Your task to perform on an android device: change the clock display to digital Image 0: 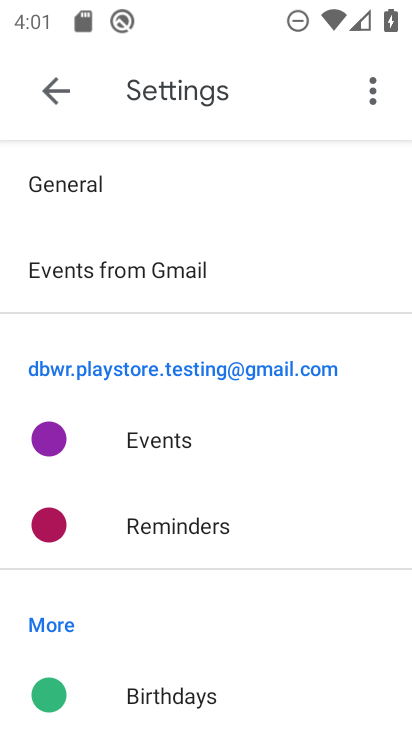
Step 0: press home button
Your task to perform on an android device: change the clock display to digital Image 1: 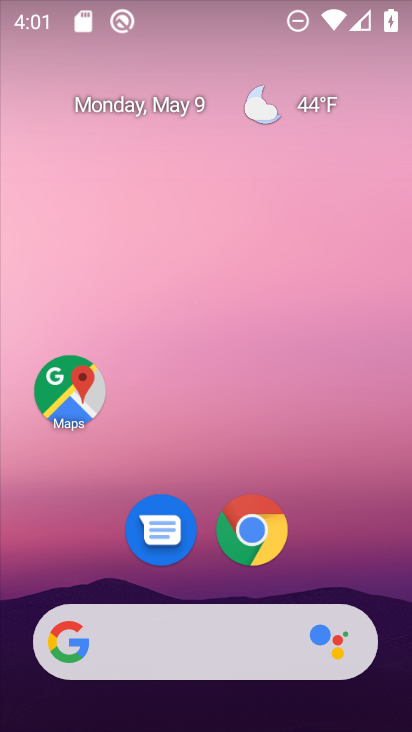
Step 1: drag from (208, 575) to (205, 82)
Your task to perform on an android device: change the clock display to digital Image 2: 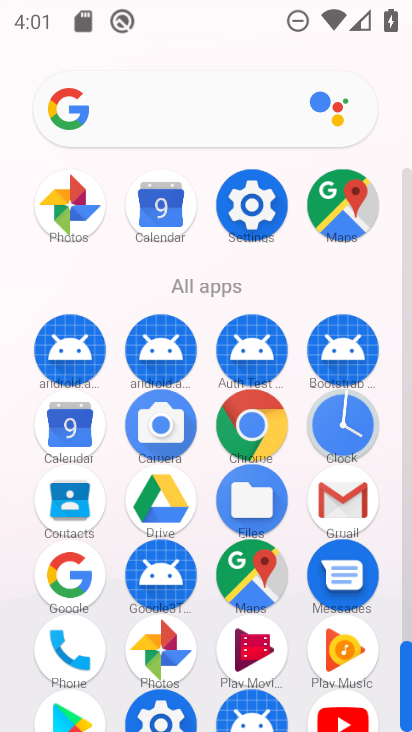
Step 2: click (337, 416)
Your task to perform on an android device: change the clock display to digital Image 3: 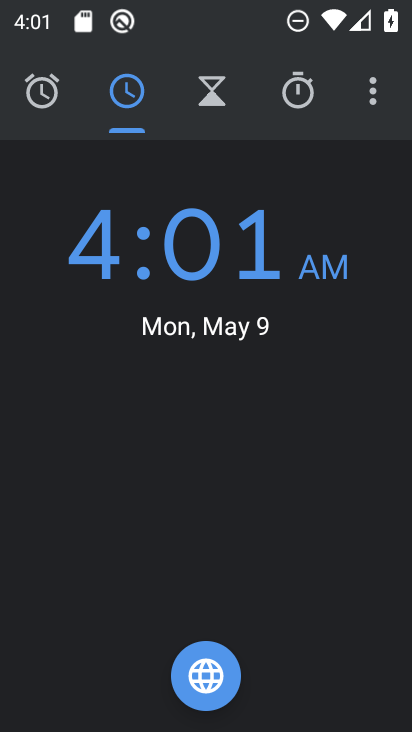
Step 3: click (370, 87)
Your task to perform on an android device: change the clock display to digital Image 4: 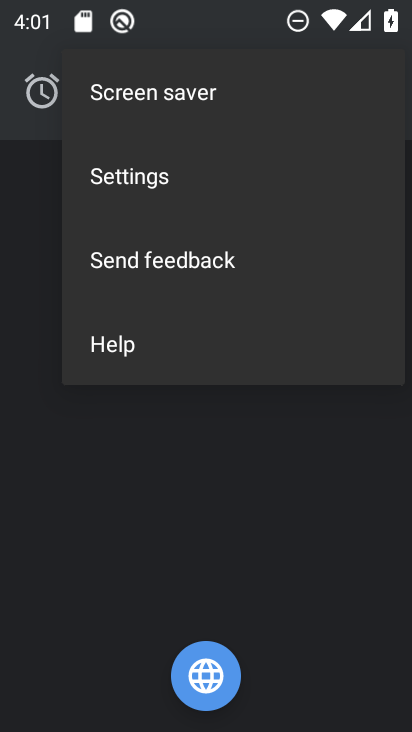
Step 4: click (186, 177)
Your task to perform on an android device: change the clock display to digital Image 5: 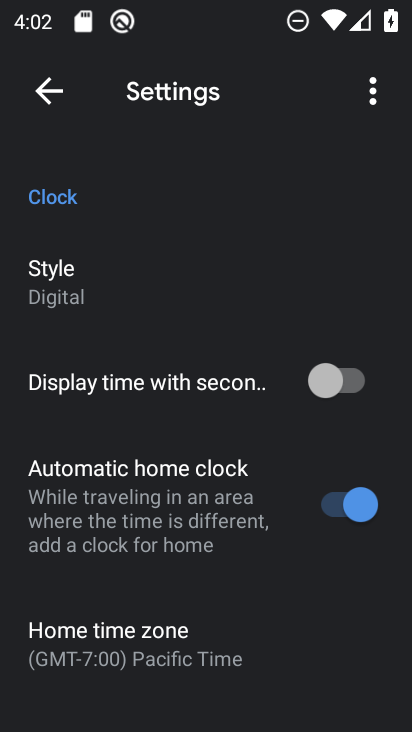
Step 5: click (102, 284)
Your task to perform on an android device: change the clock display to digital Image 6: 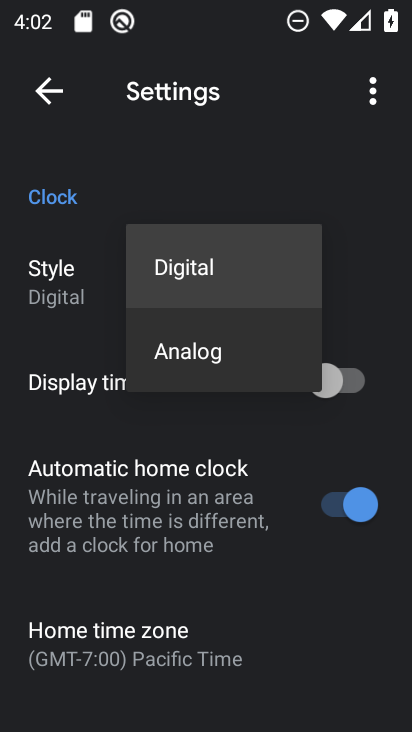
Step 6: click (203, 274)
Your task to perform on an android device: change the clock display to digital Image 7: 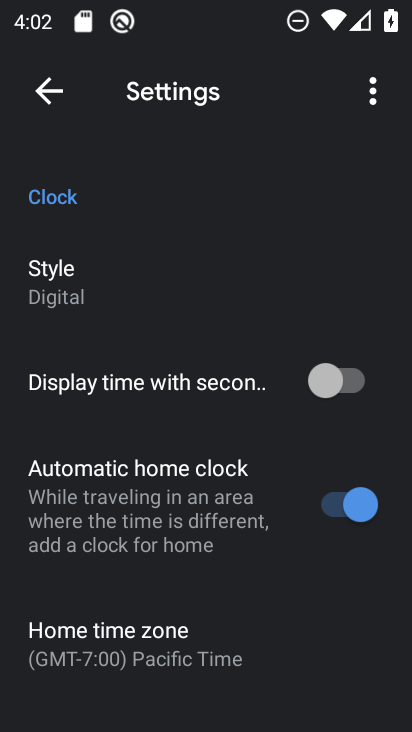
Step 7: task complete